Your task to perform on an android device: turn on wifi Image 0: 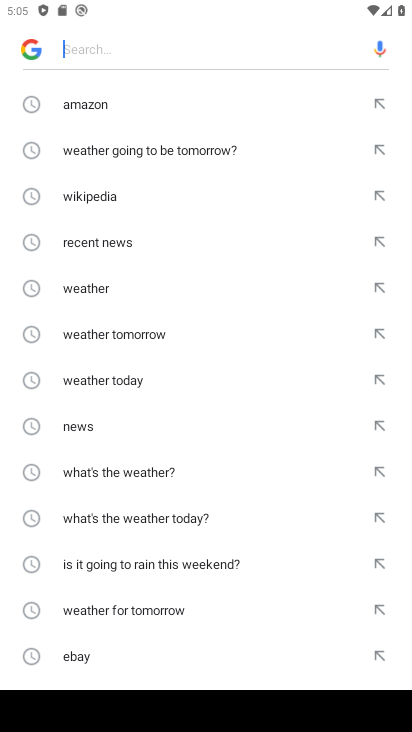
Step 0: press home button
Your task to perform on an android device: turn on wifi Image 1: 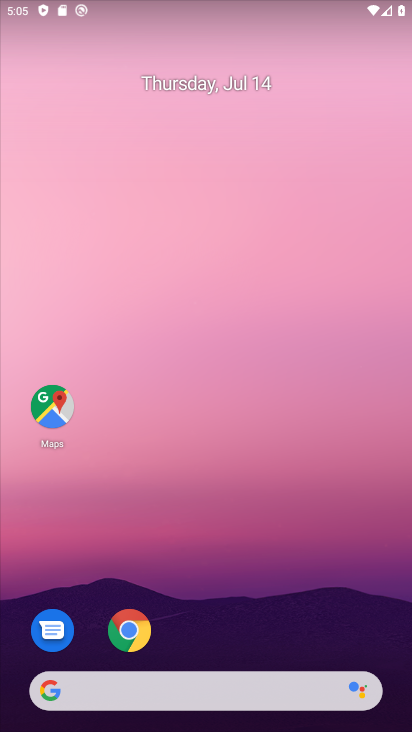
Step 1: task complete